Your task to perform on an android device: Go to Reddit.com Image 0: 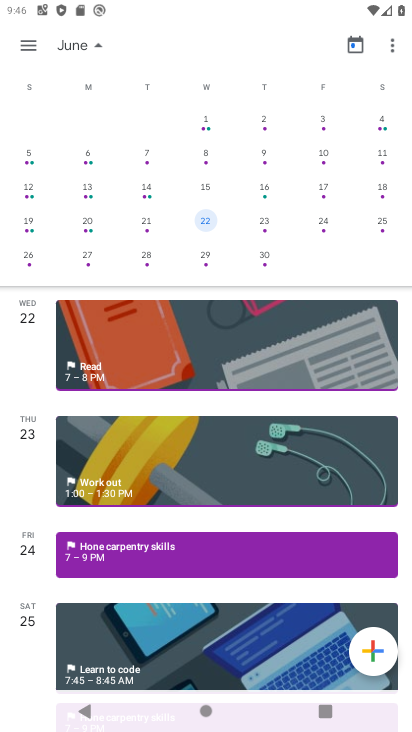
Step 0: press home button
Your task to perform on an android device: Go to Reddit.com Image 1: 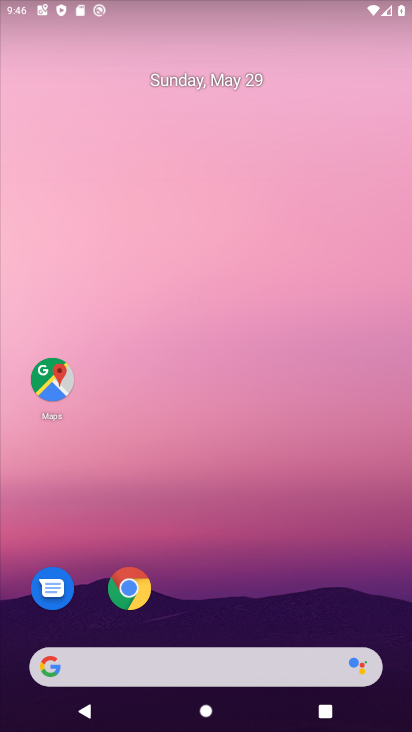
Step 1: drag from (230, 619) to (277, 156)
Your task to perform on an android device: Go to Reddit.com Image 2: 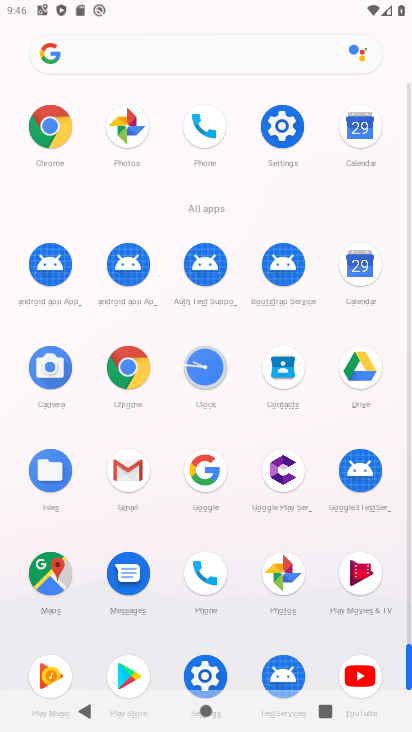
Step 2: click (148, 384)
Your task to perform on an android device: Go to Reddit.com Image 3: 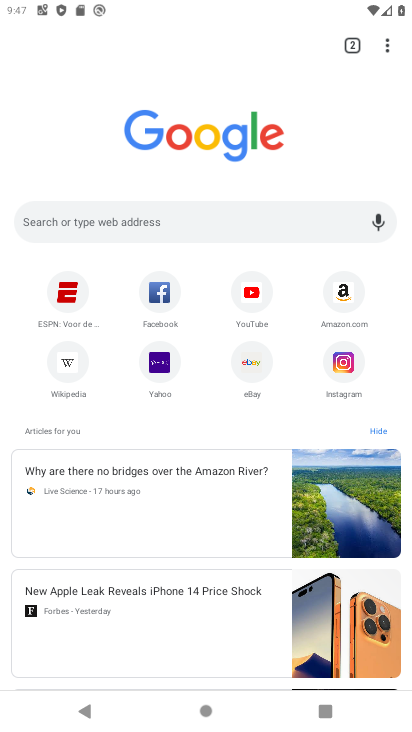
Step 3: click (199, 227)
Your task to perform on an android device: Go to Reddit.com Image 4: 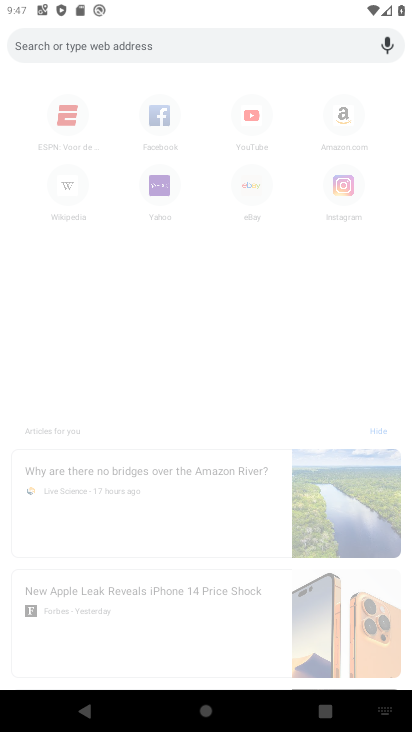
Step 4: type ""
Your task to perform on an android device: Go to Reddit.com Image 5: 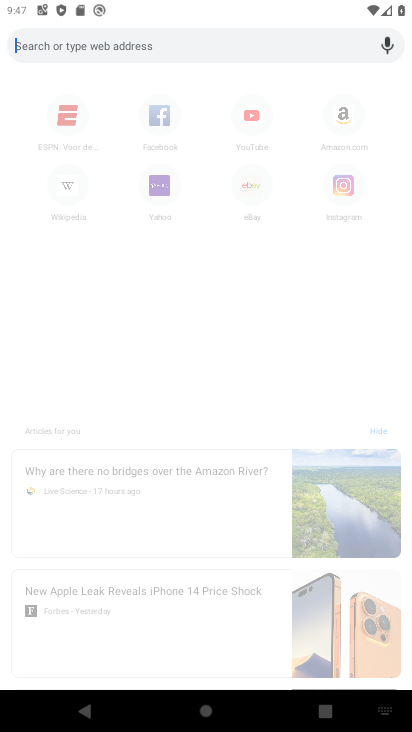
Step 5: type "reddit.com"
Your task to perform on an android device: Go to Reddit.com Image 6: 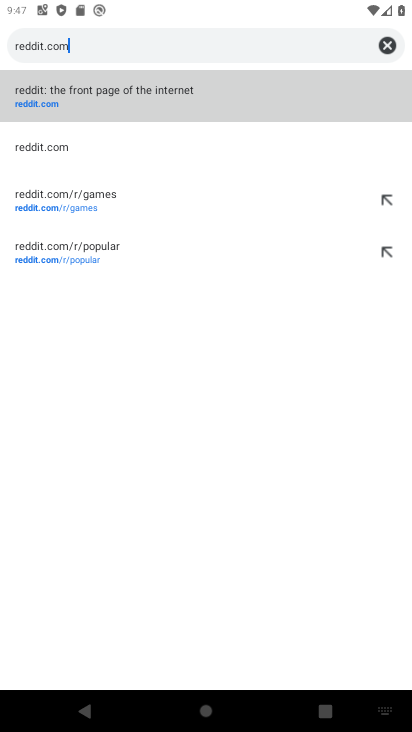
Step 6: type ""
Your task to perform on an android device: Go to Reddit.com Image 7: 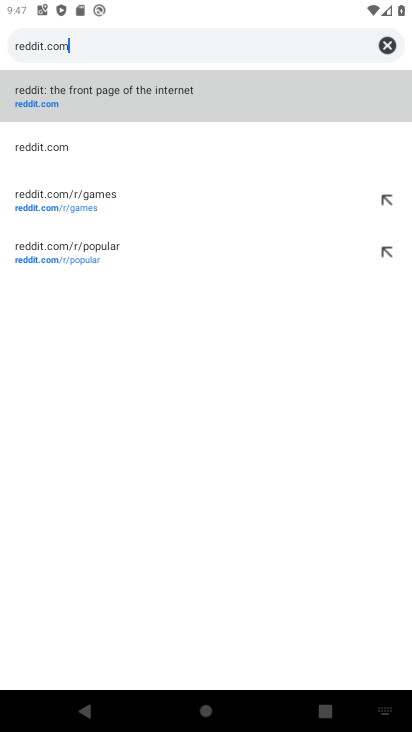
Step 7: click (110, 103)
Your task to perform on an android device: Go to Reddit.com Image 8: 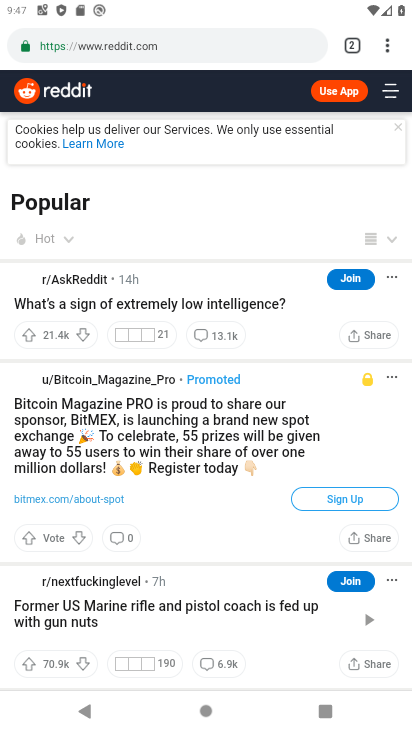
Step 8: task complete